Your task to perform on an android device: turn off data saver in the chrome app Image 0: 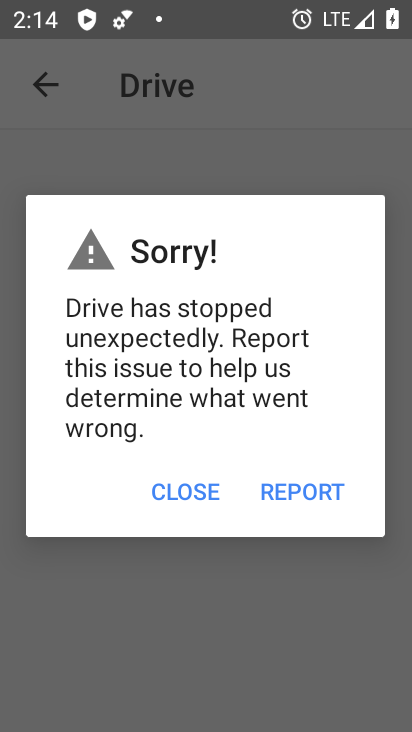
Step 0: press back button
Your task to perform on an android device: turn off data saver in the chrome app Image 1: 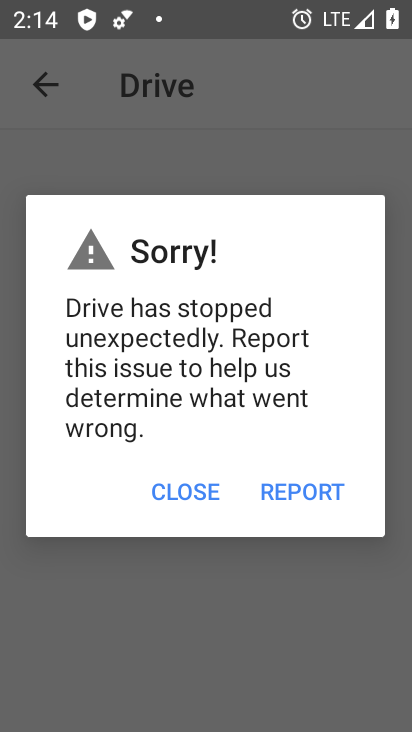
Step 1: press home button
Your task to perform on an android device: turn off data saver in the chrome app Image 2: 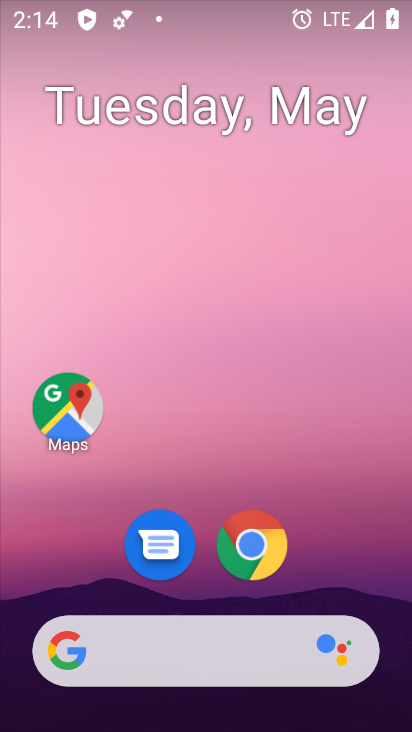
Step 2: drag from (315, 527) to (192, 25)
Your task to perform on an android device: turn off data saver in the chrome app Image 3: 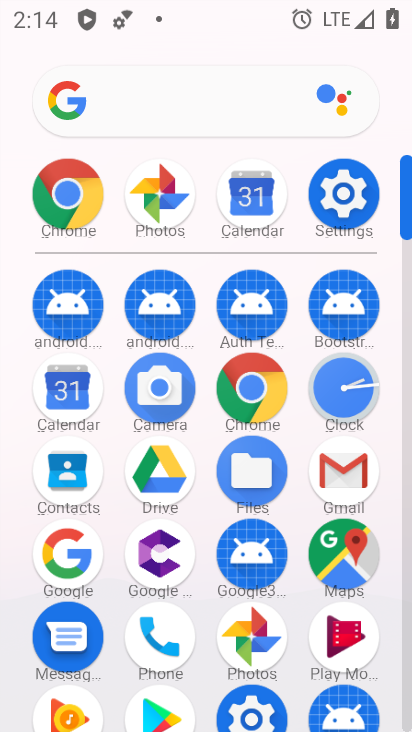
Step 3: click (252, 383)
Your task to perform on an android device: turn off data saver in the chrome app Image 4: 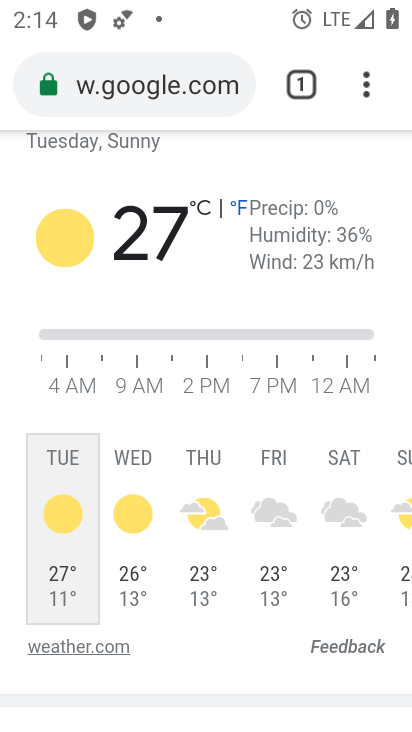
Step 4: drag from (363, 86) to (120, 590)
Your task to perform on an android device: turn off data saver in the chrome app Image 5: 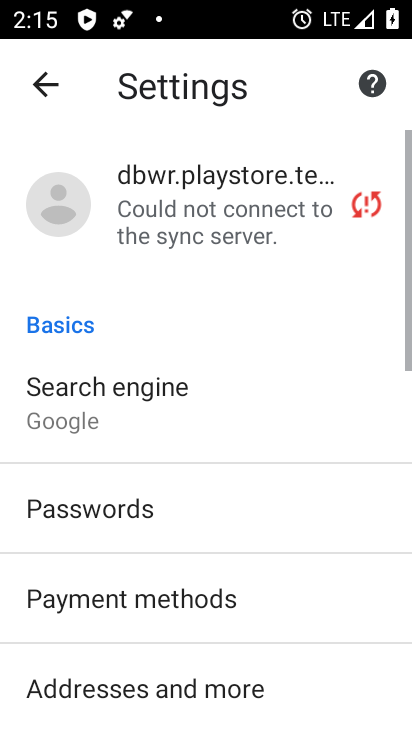
Step 5: drag from (308, 585) to (271, 118)
Your task to perform on an android device: turn off data saver in the chrome app Image 6: 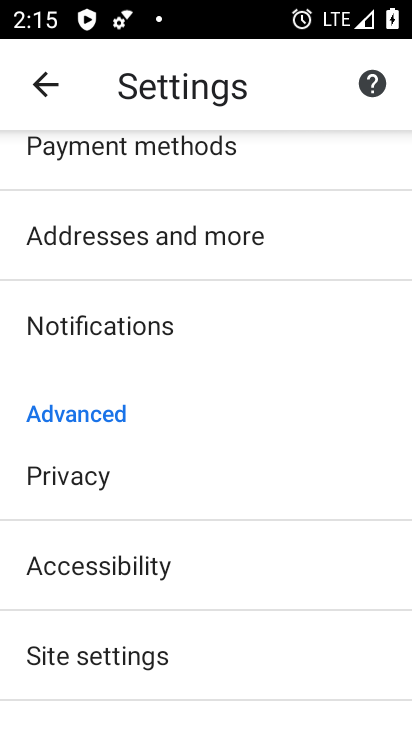
Step 6: drag from (249, 569) to (231, 121)
Your task to perform on an android device: turn off data saver in the chrome app Image 7: 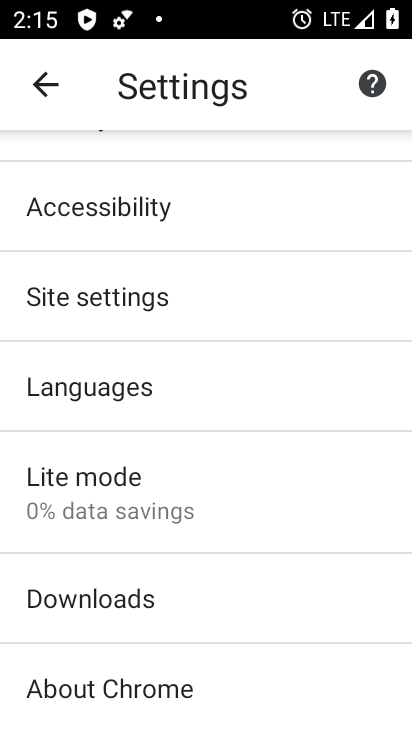
Step 7: drag from (210, 643) to (226, 300)
Your task to perform on an android device: turn off data saver in the chrome app Image 8: 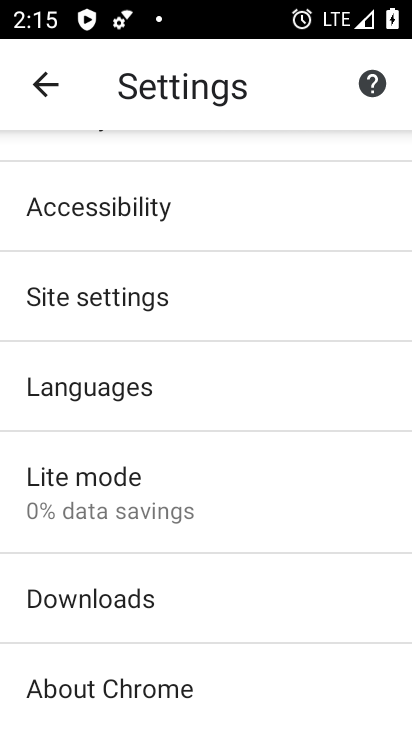
Step 8: click (162, 486)
Your task to perform on an android device: turn off data saver in the chrome app Image 9: 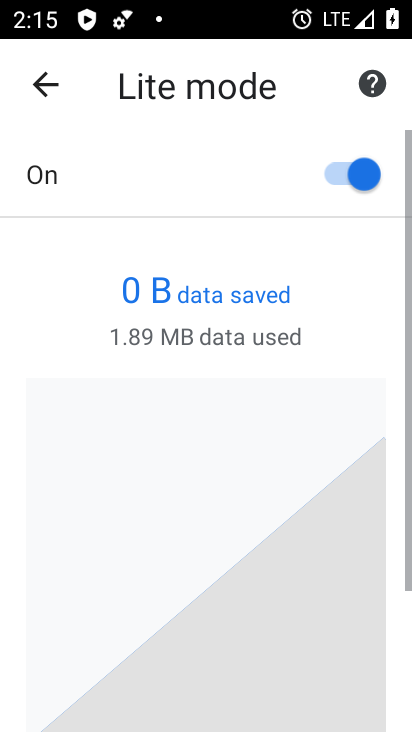
Step 9: click (330, 162)
Your task to perform on an android device: turn off data saver in the chrome app Image 10: 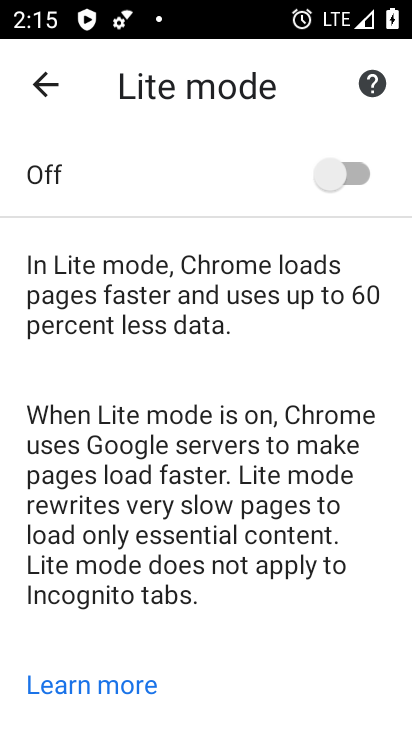
Step 10: task complete